Your task to perform on an android device: turn on translation in the chrome app Image 0: 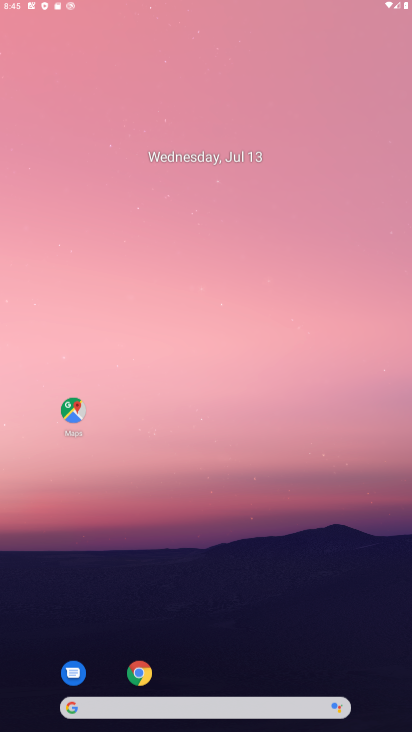
Step 0: drag from (333, 625) to (277, 138)
Your task to perform on an android device: turn on translation in the chrome app Image 1: 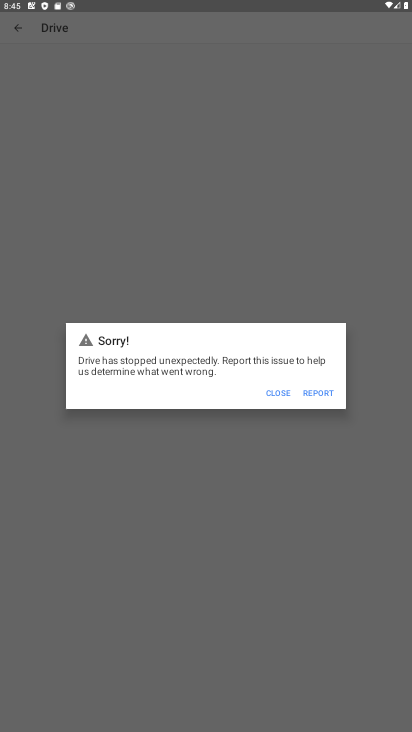
Step 1: press home button
Your task to perform on an android device: turn on translation in the chrome app Image 2: 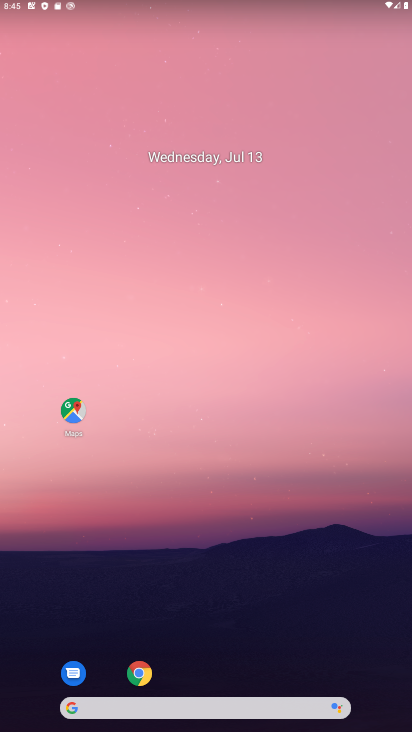
Step 2: drag from (282, 552) to (212, 168)
Your task to perform on an android device: turn on translation in the chrome app Image 3: 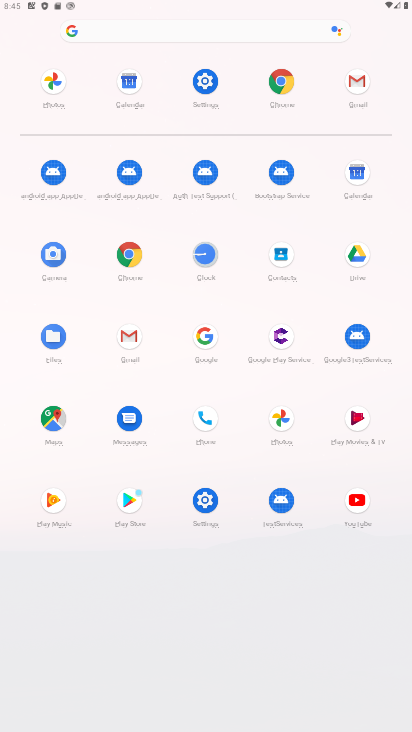
Step 3: click (128, 252)
Your task to perform on an android device: turn on translation in the chrome app Image 4: 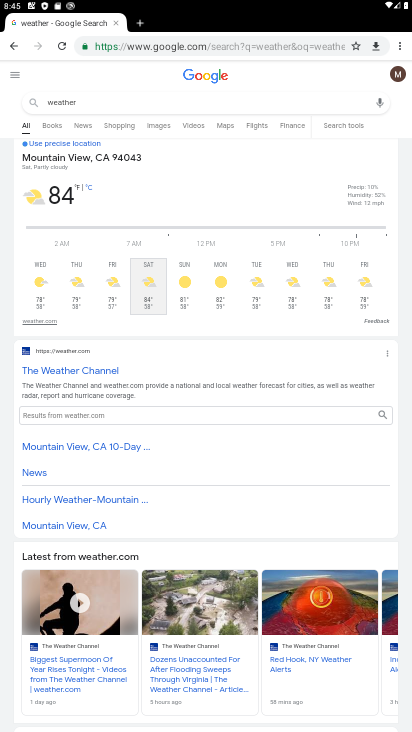
Step 4: drag from (401, 44) to (306, 307)
Your task to perform on an android device: turn on translation in the chrome app Image 5: 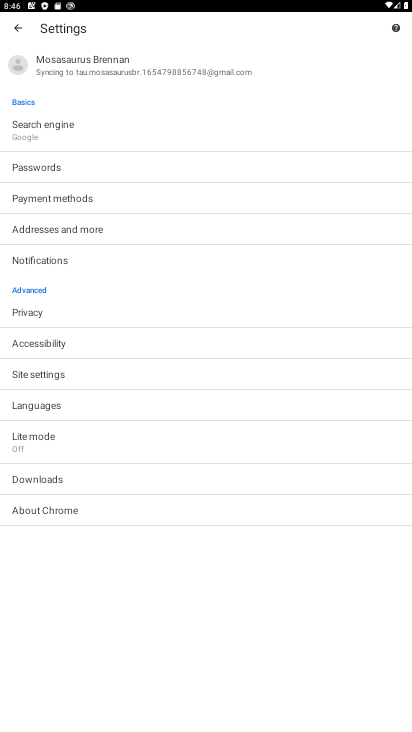
Step 5: click (51, 405)
Your task to perform on an android device: turn on translation in the chrome app Image 6: 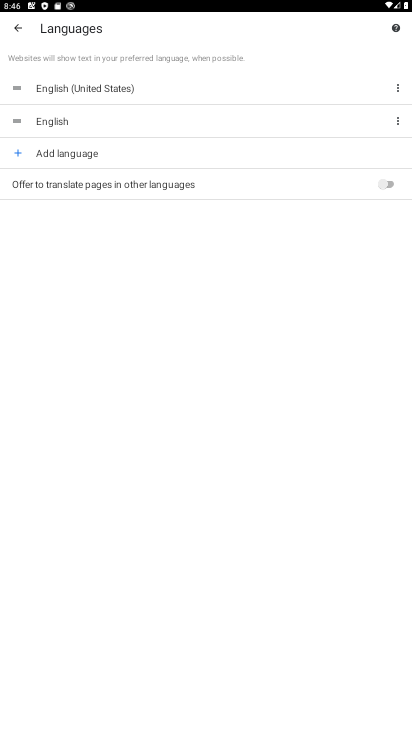
Step 6: click (383, 182)
Your task to perform on an android device: turn on translation in the chrome app Image 7: 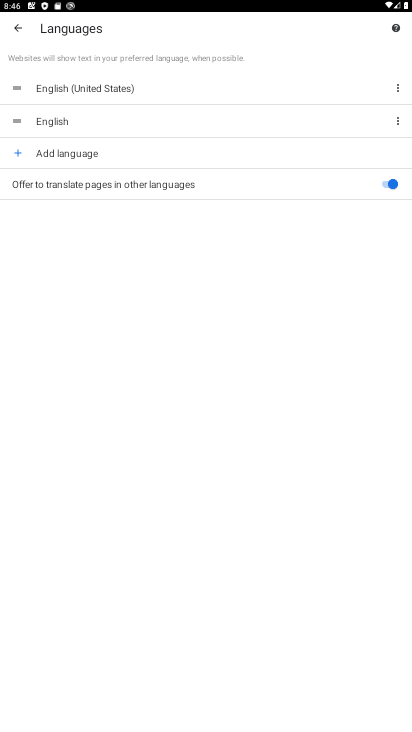
Step 7: task complete